Your task to perform on an android device: install app "Adobe Express: Graphic Design" Image 0: 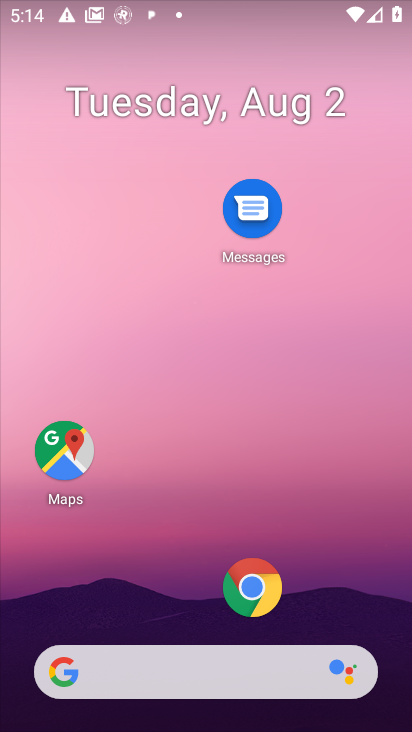
Step 0: drag from (174, 581) to (207, 84)
Your task to perform on an android device: install app "Adobe Express: Graphic Design" Image 1: 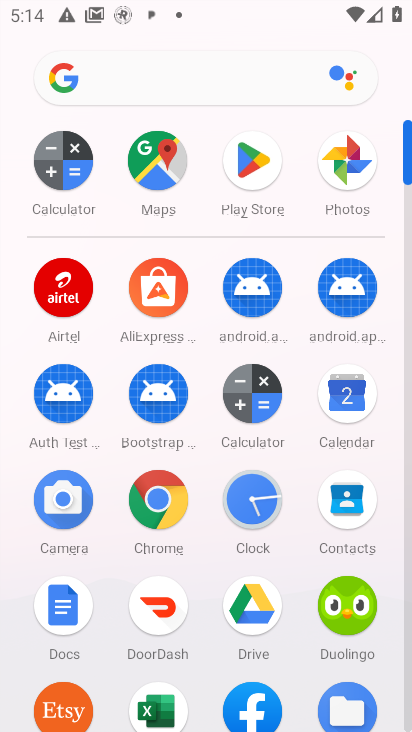
Step 1: click (262, 176)
Your task to perform on an android device: install app "Adobe Express: Graphic Design" Image 2: 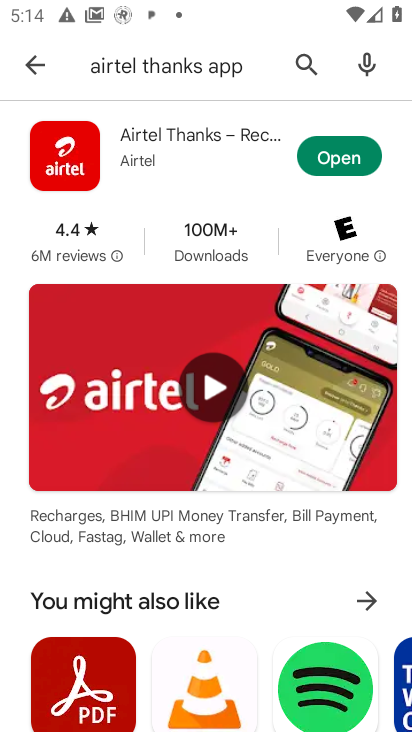
Step 2: click (299, 74)
Your task to perform on an android device: install app "Adobe Express: Graphic Design" Image 3: 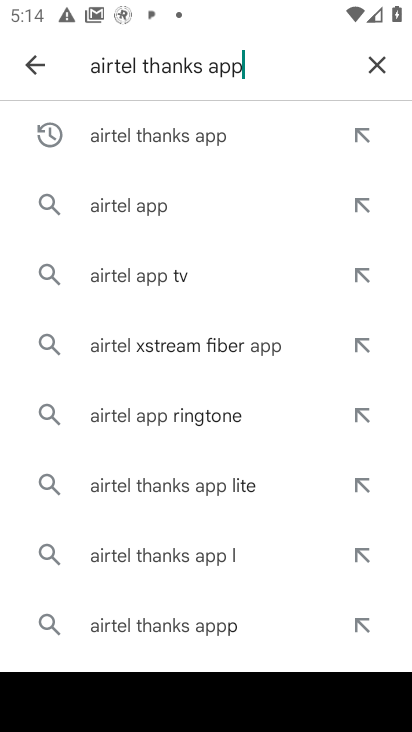
Step 3: click (384, 65)
Your task to perform on an android device: install app "Adobe Express: Graphic Design" Image 4: 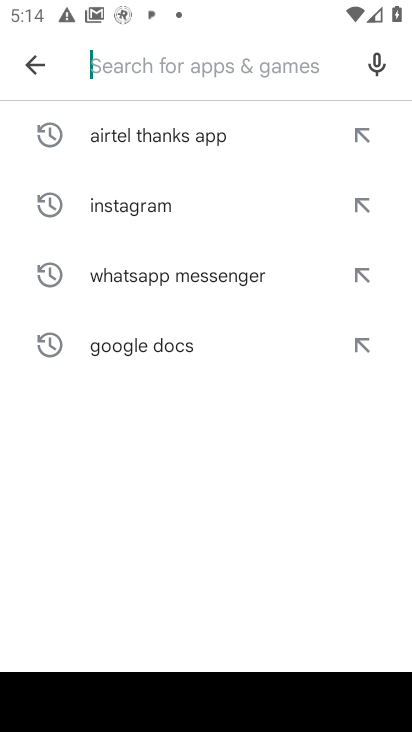
Step 4: type "Adobe Express: Graphic Design"
Your task to perform on an android device: install app "Adobe Express: Graphic Design" Image 5: 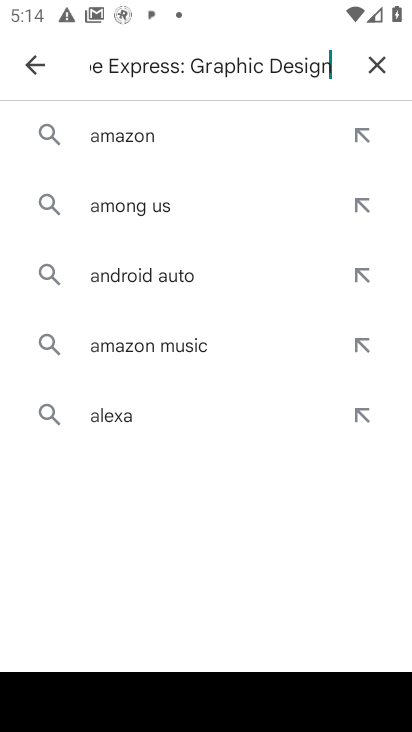
Step 5: type ""
Your task to perform on an android device: install app "Adobe Express: Graphic Design" Image 6: 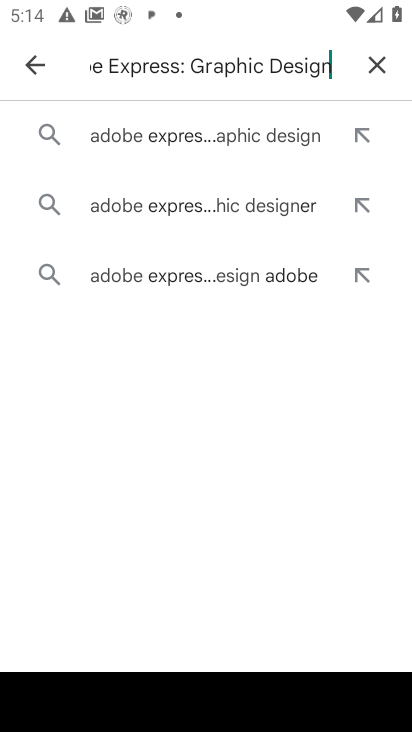
Step 6: click (174, 127)
Your task to perform on an android device: install app "Adobe Express: Graphic Design" Image 7: 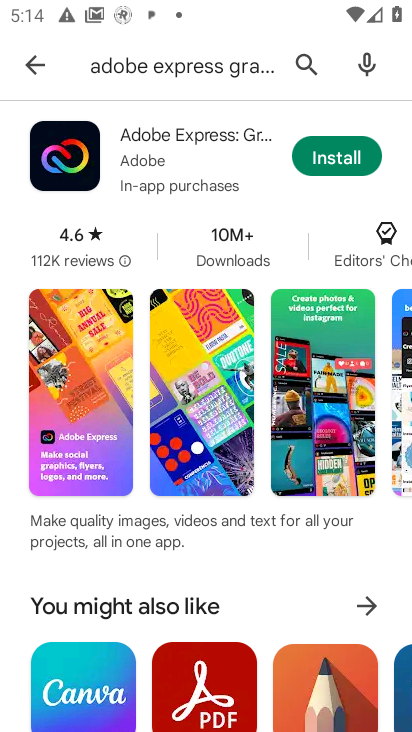
Step 7: click (348, 147)
Your task to perform on an android device: install app "Adobe Express: Graphic Design" Image 8: 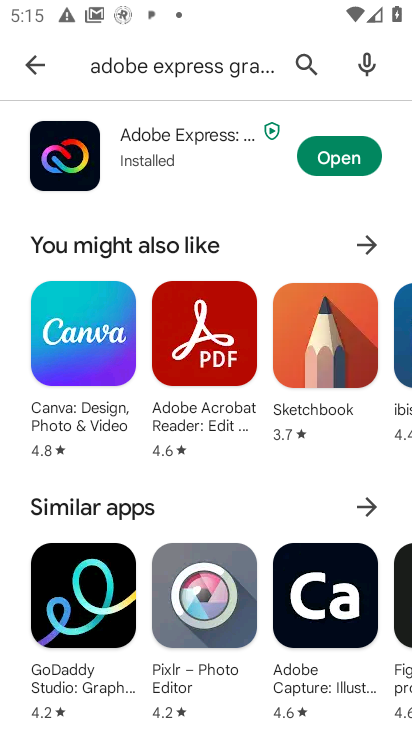
Step 8: task complete